Your task to perform on an android device: Show me recent news Image 0: 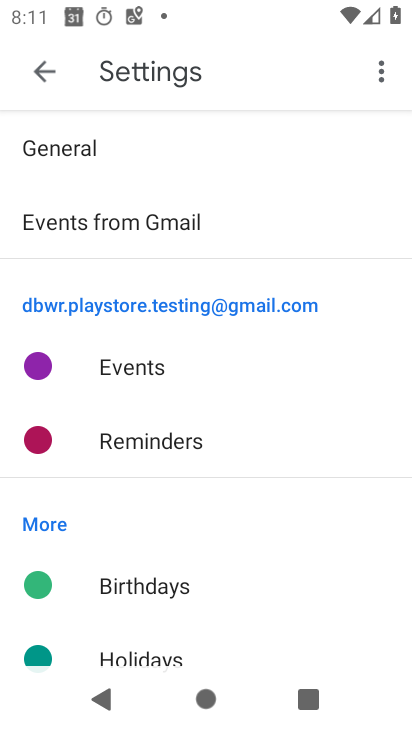
Step 0: press home button
Your task to perform on an android device: Show me recent news Image 1: 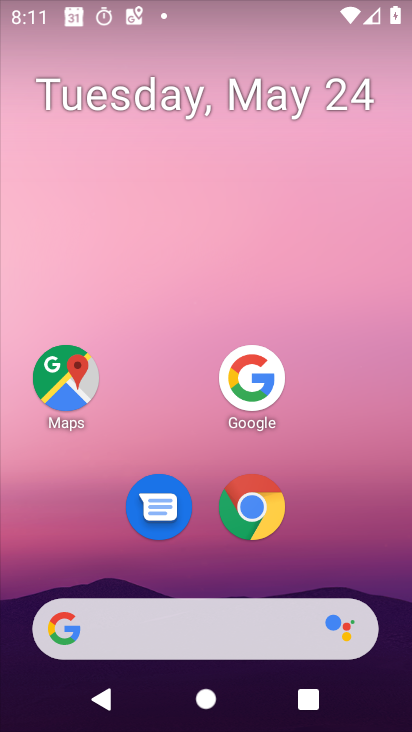
Step 1: click (73, 635)
Your task to perform on an android device: Show me recent news Image 2: 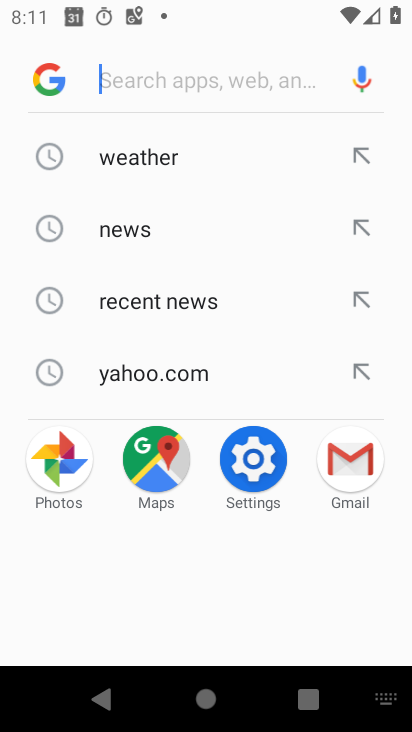
Step 2: click (126, 228)
Your task to perform on an android device: Show me recent news Image 3: 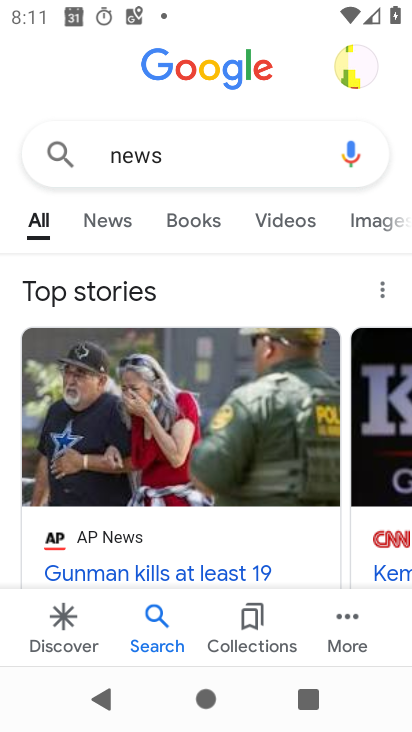
Step 3: click (108, 220)
Your task to perform on an android device: Show me recent news Image 4: 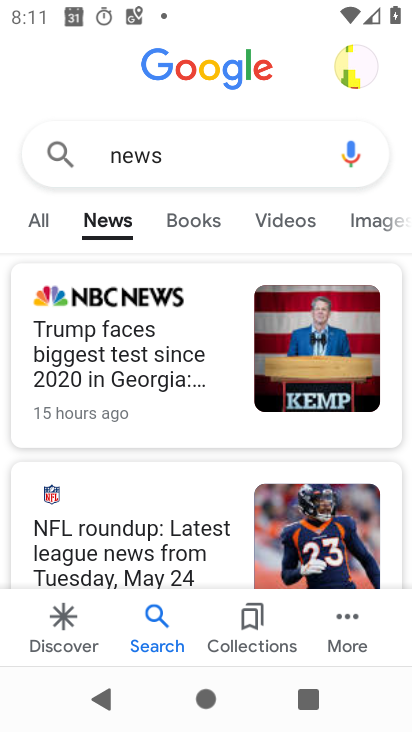
Step 4: task complete